Your task to perform on an android device: Add "razer blade" to the cart on newegg.com, then select checkout. Image 0: 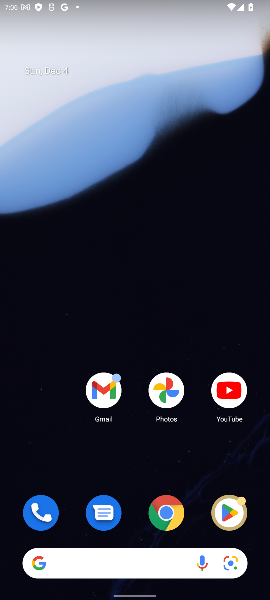
Step 0: click (172, 499)
Your task to perform on an android device: Add "razer blade" to the cart on newegg.com, then select checkout. Image 1: 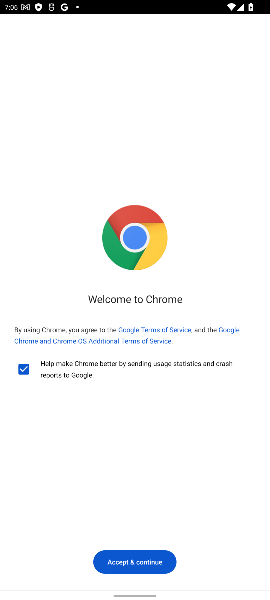
Step 1: click (149, 567)
Your task to perform on an android device: Add "razer blade" to the cart on newegg.com, then select checkout. Image 2: 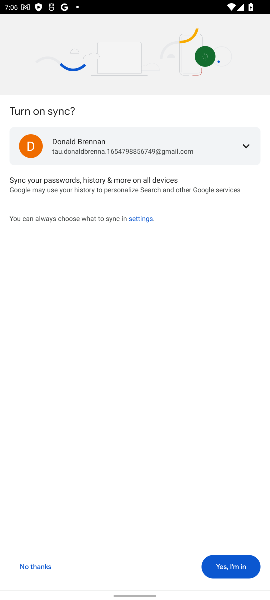
Step 2: click (231, 565)
Your task to perform on an android device: Add "razer blade" to the cart on newegg.com, then select checkout. Image 3: 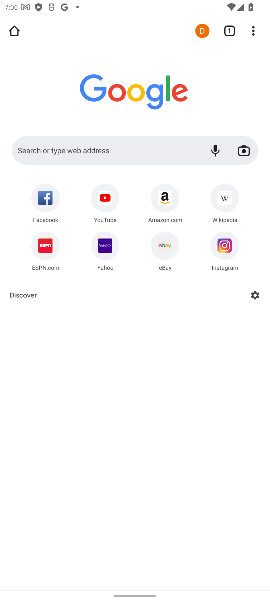
Step 3: click (105, 149)
Your task to perform on an android device: Add "razer blade" to the cart on newegg.com, then select checkout. Image 4: 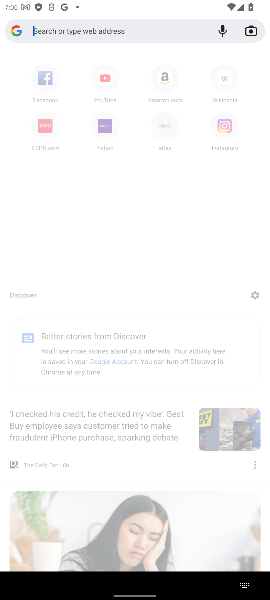
Step 4: type "newegg"
Your task to perform on an android device: Add "razer blade" to the cart on newegg.com, then select checkout. Image 5: 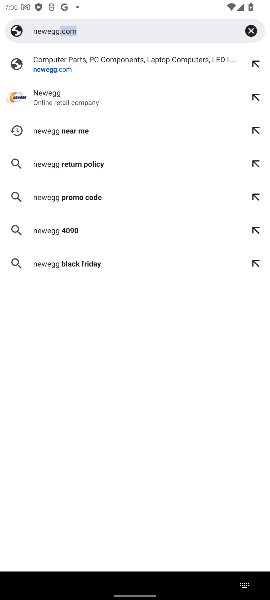
Step 5: click (52, 96)
Your task to perform on an android device: Add "razer blade" to the cart on newegg.com, then select checkout. Image 6: 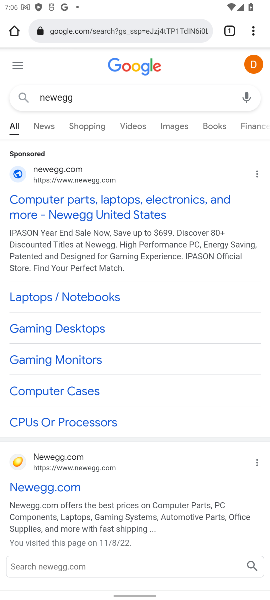
Step 6: drag from (88, 505) to (104, 320)
Your task to perform on an android device: Add "razer blade" to the cart on newegg.com, then select checkout. Image 7: 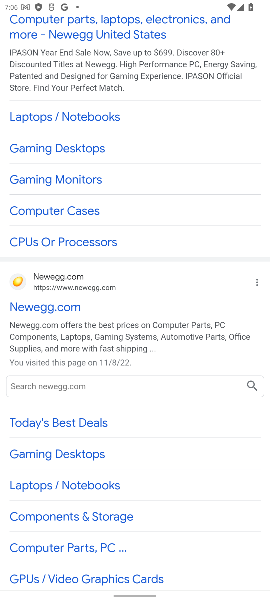
Step 7: click (76, 380)
Your task to perform on an android device: Add "razer blade" to the cart on newegg.com, then select checkout. Image 8: 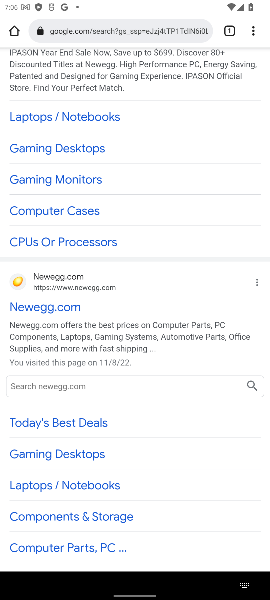
Step 8: type "razer blade"
Your task to perform on an android device: Add "razer blade" to the cart on newegg.com, then select checkout. Image 9: 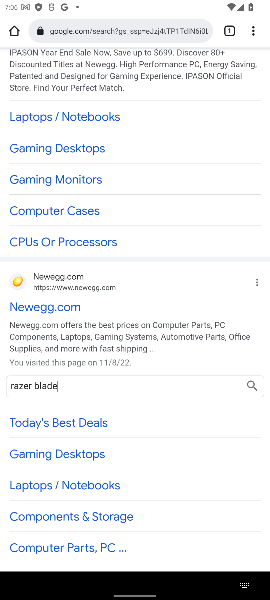
Step 9: click (251, 384)
Your task to perform on an android device: Add "razer blade" to the cart on newegg.com, then select checkout. Image 10: 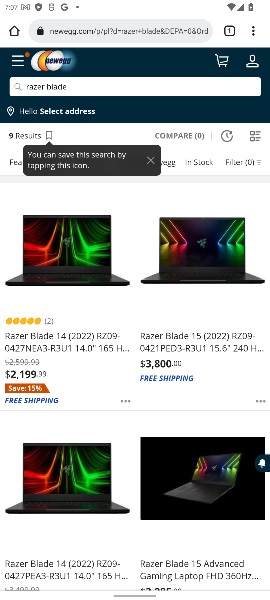
Step 10: click (74, 345)
Your task to perform on an android device: Add "razer blade" to the cart on newegg.com, then select checkout. Image 11: 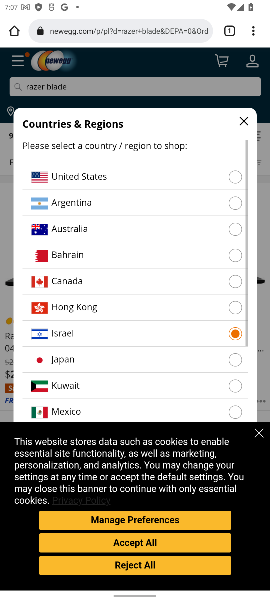
Step 11: click (258, 433)
Your task to perform on an android device: Add "razer blade" to the cart on newegg.com, then select checkout. Image 12: 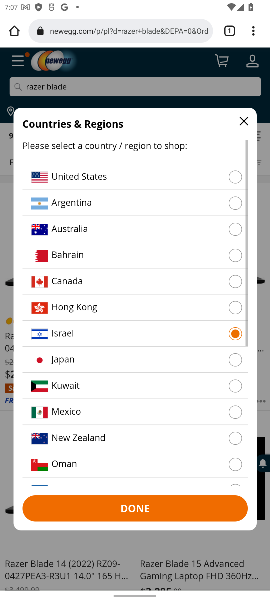
Step 12: click (168, 509)
Your task to perform on an android device: Add "razer blade" to the cart on newegg.com, then select checkout. Image 13: 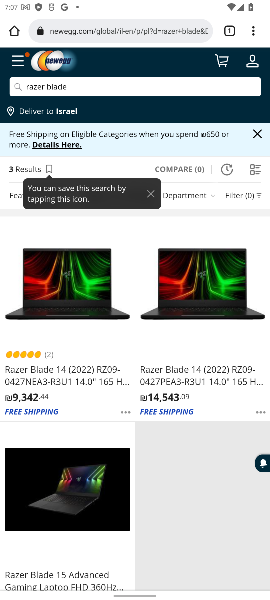
Step 13: click (101, 338)
Your task to perform on an android device: Add "razer blade" to the cart on newegg.com, then select checkout. Image 14: 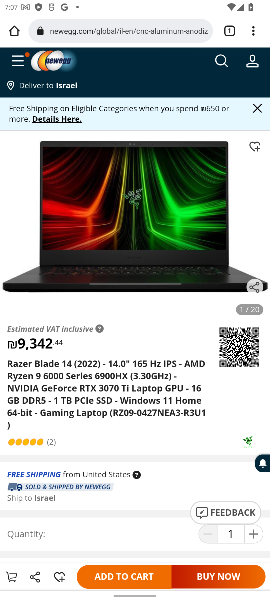
Step 14: click (131, 576)
Your task to perform on an android device: Add "razer blade" to the cart on newegg.com, then select checkout. Image 15: 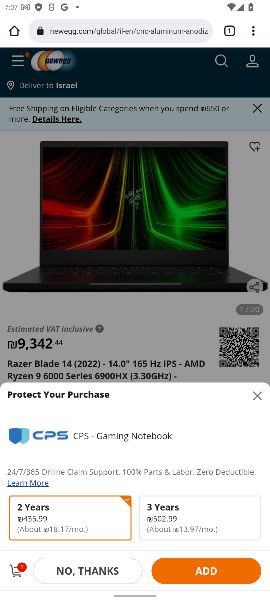
Step 15: click (106, 569)
Your task to perform on an android device: Add "razer blade" to the cart on newegg.com, then select checkout. Image 16: 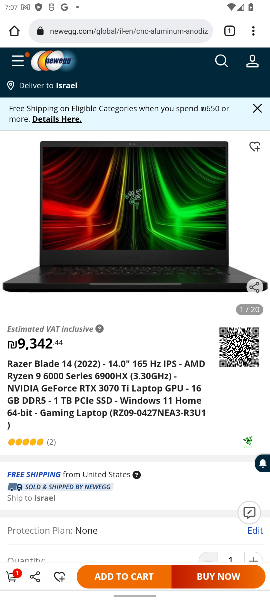
Step 16: click (13, 577)
Your task to perform on an android device: Add "razer blade" to the cart on newegg.com, then select checkout. Image 17: 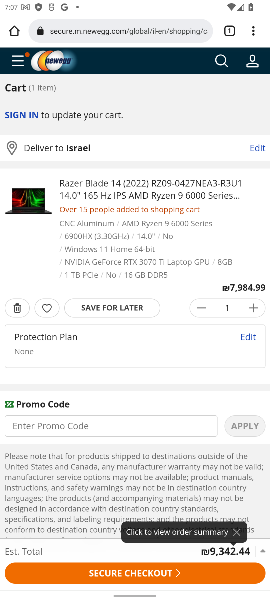
Step 17: click (145, 571)
Your task to perform on an android device: Add "razer blade" to the cart on newegg.com, then select checkout. Image 18: 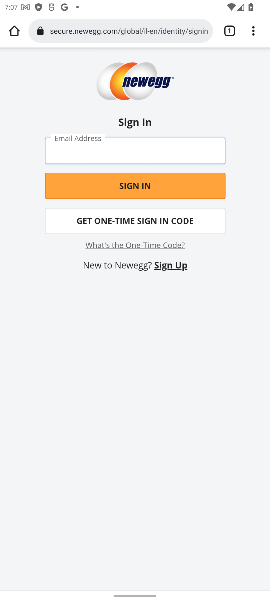
Step 18: task complete